Your task to perform on an android device: see creations saved in the google photos Image 0: 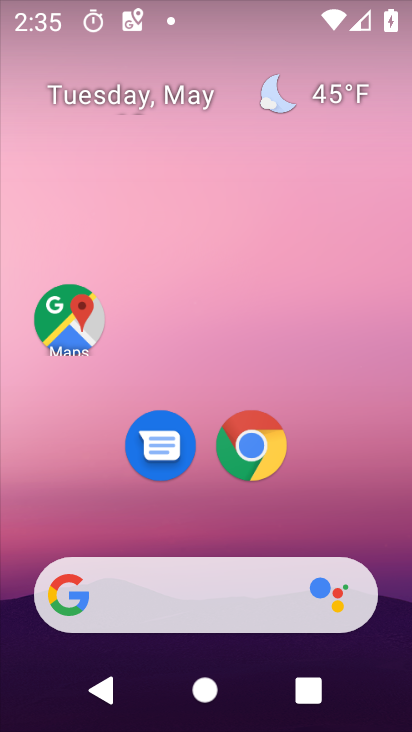
Step 0: drag from (215, 462) to (374, 24)
Your task to perform on an android device: see creations saved in the google photos Image 1: 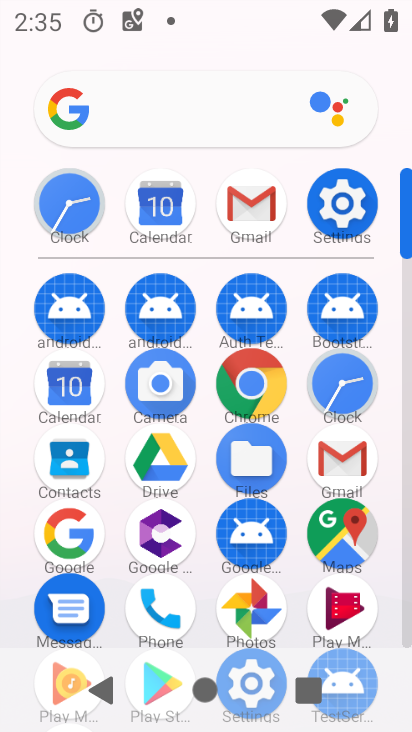
Step 1: click (251, 609)
Your task to perform on an android device: see creations saved in the google photos Image 2: 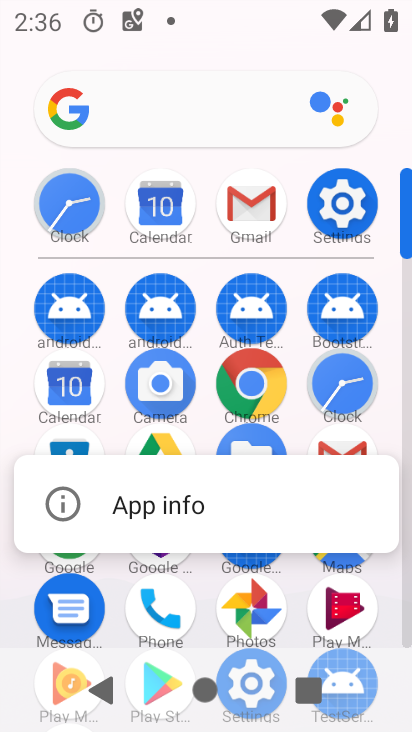
Step 2: click (256, 615)
Your task to perform on an android device: see creations saved in the google photos Image 3: 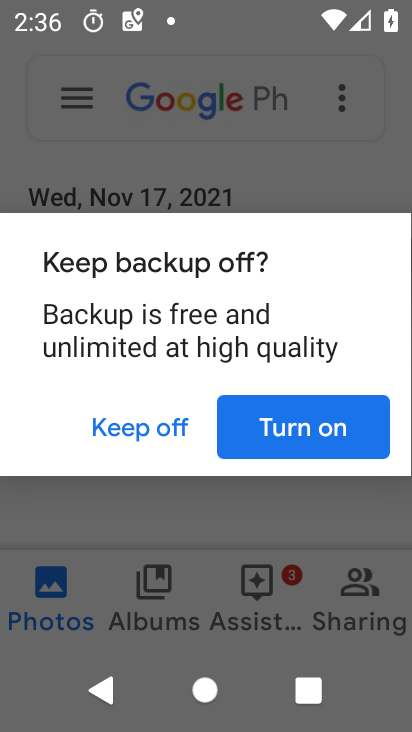
Step 3: click (148, 507)
Your task to perform on an android device: see creations saved in the google photos Image 4: 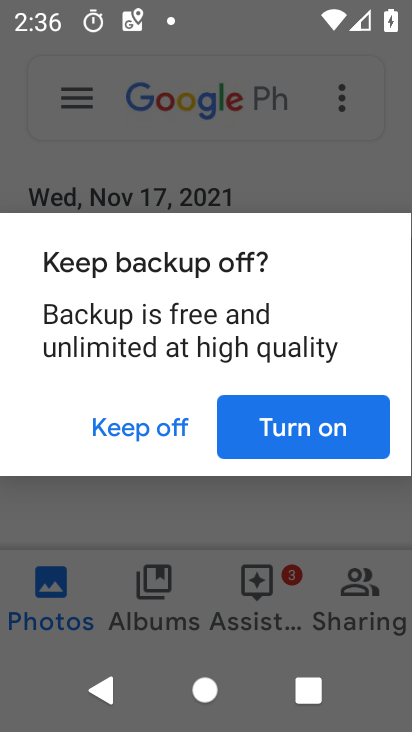
Step 4: click (164, 431)
Your task to perform on an android device: see creations saved in the google photos Image 5: 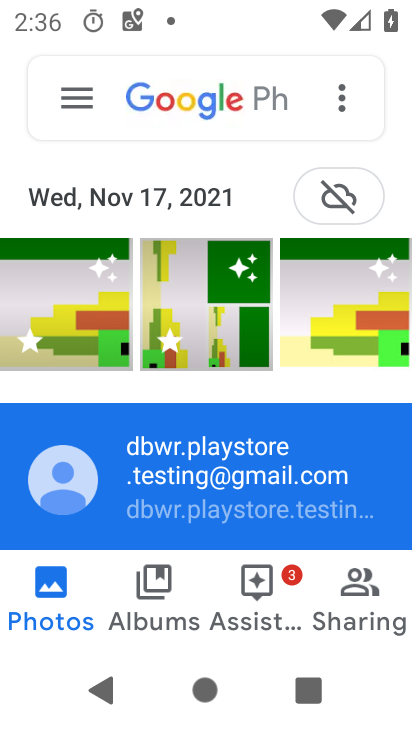
Step 5: click (65, 89)
Your task to perform on an android device: see creations saved in the google photos Image 6: 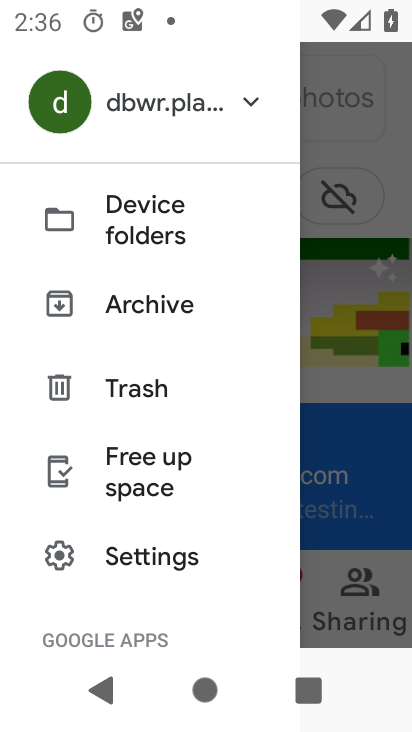
Step 6: click (144, 309)
Your task to perform on an android device: see creations saved in the google photos Image 7: 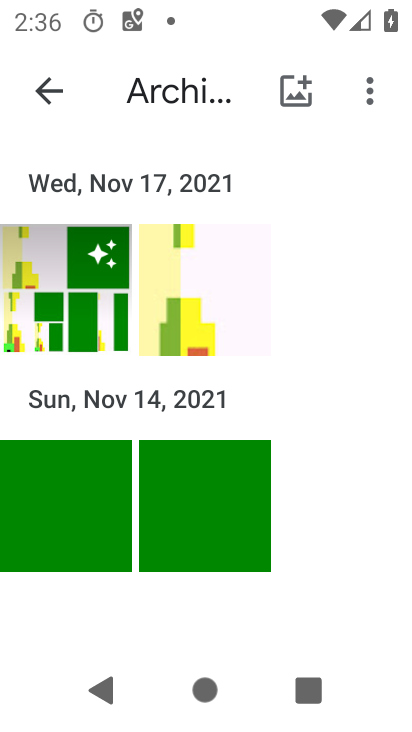
Step 7: task complete